Your task to perform on an android device: see sites visited before in the chrome app Image 0: 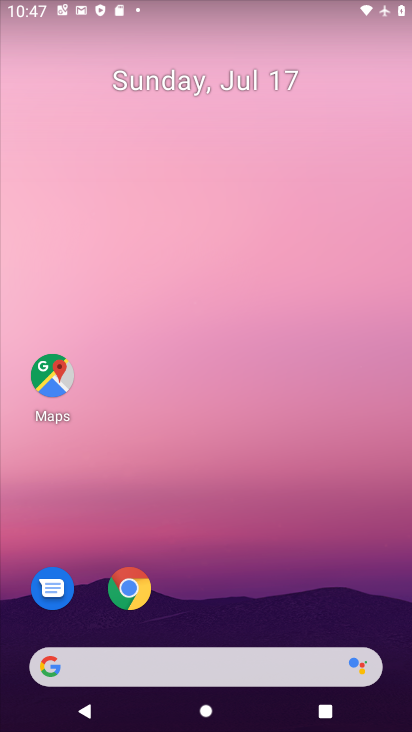
Step 0: drag from (373, 589) to (316, 184)
Your task to perform on an android device: see sites visited before in the chrome app Image 1: 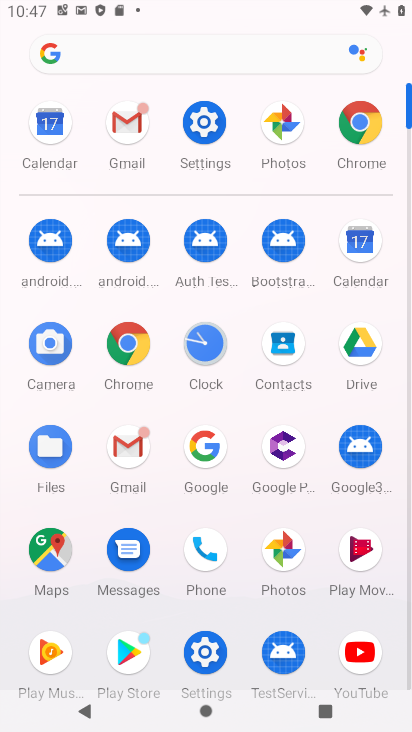
Step 1: click (386, 121)
Your task to perform on an android device: see sites visited before in the chrome app Image 2: 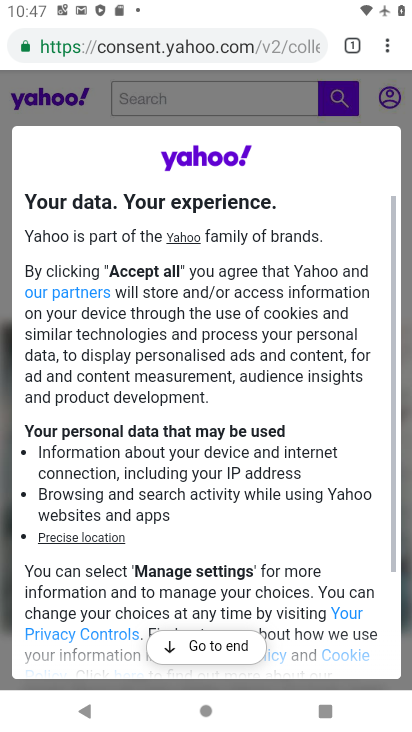
Step 2: task complete